Your task to perform on an android device: turn off data saver in the chrome app Image 0: 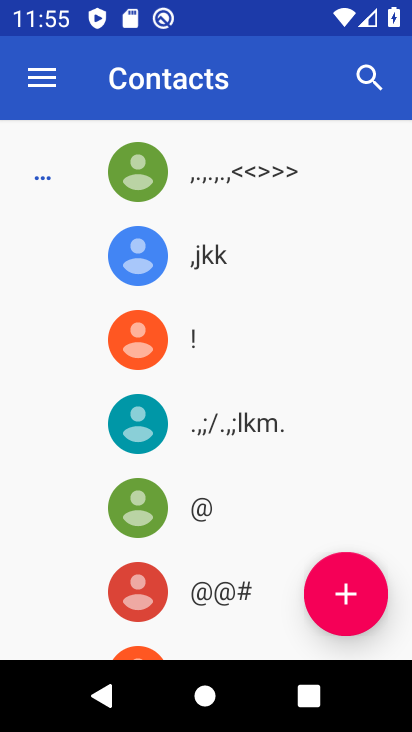
Step 0: press home button
Your task to perform on an android device: turn off data saver in the chrome app Image 1: 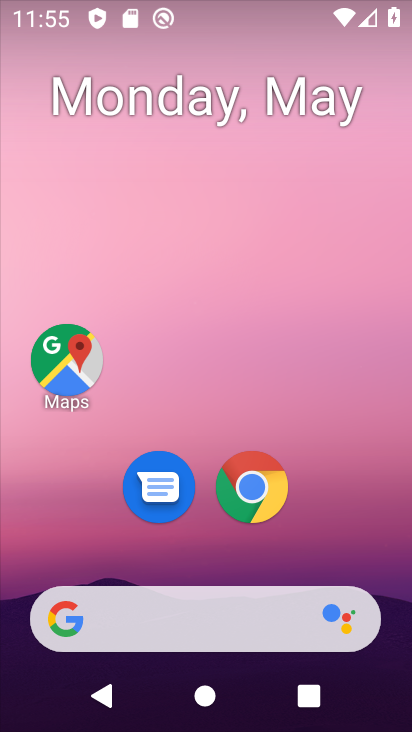
Step 1: click (265, 474)
Your task to perform on an android device: turn off data saver in the chrome app Image 2: 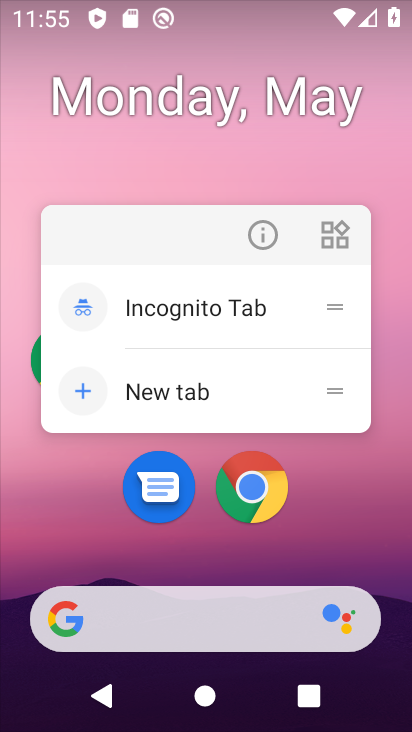
Step 2: click (265, 471)
Your task to perform on an android device: turn off data saver in the chrome app Image 3: 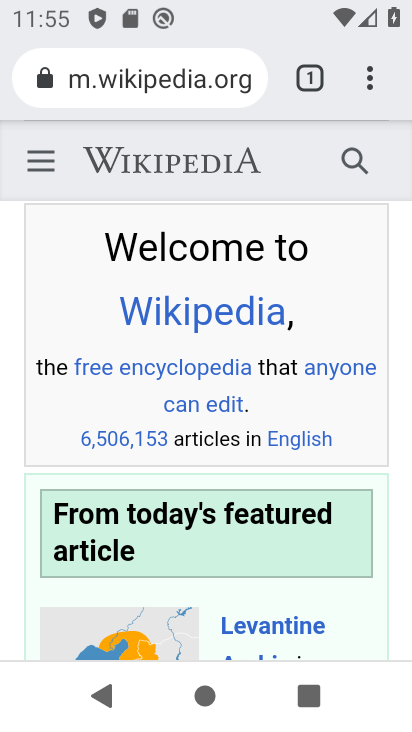
Step 3: click (381, 63)
Your task to perform on an android device: turn off data saver in the chrome app Image 4: 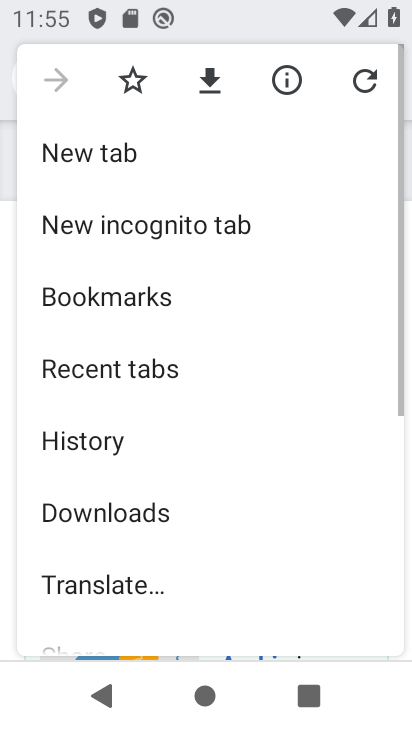
Step 4: drag from (193, 573) to (164, 120)
Your task to perform on an android device: turn off data saver in the chrome app Image 5: 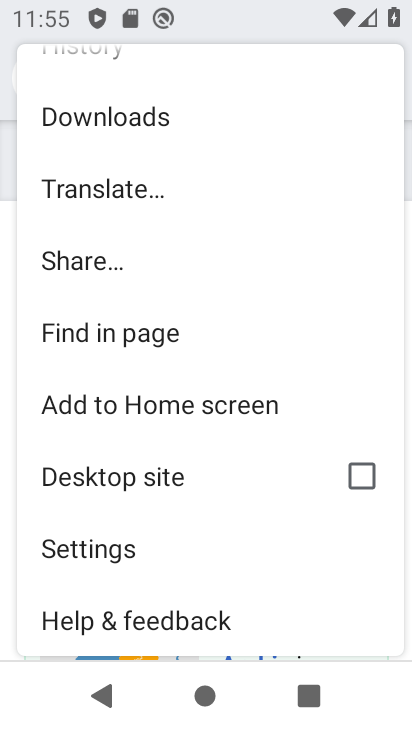
Step 5: click (123, 531)
Your task to perform on an android device: turn off data saver in the chrome app Image 6: 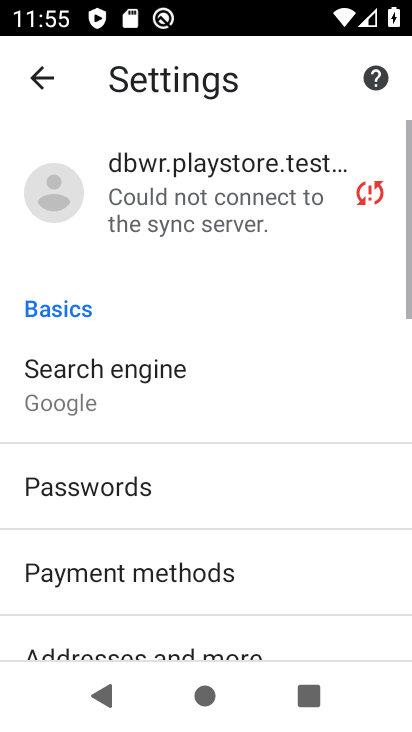
Step 6: drag from (173, 546) to (221, 109)
Your task to perform on an android device: turn off data saver in the chrome app Image 7: 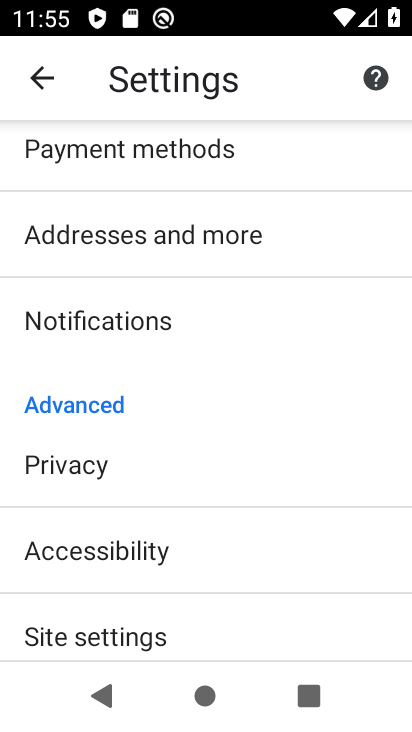
Step 7: drag from (166, 535) to (154, 251)
Your task to perform on an android device: turn off data saver in the chrome app Image 8: 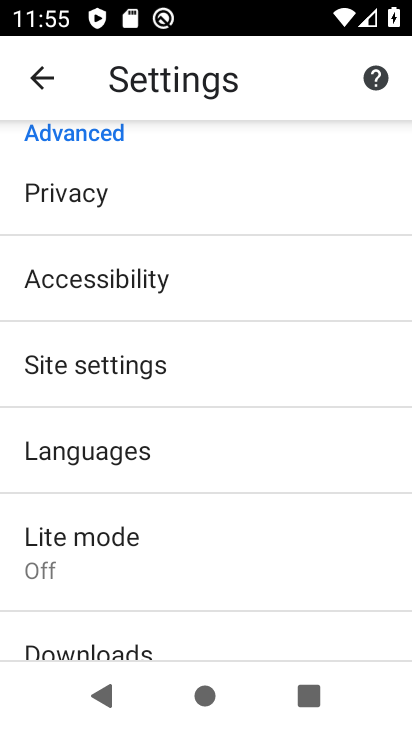
Step 8: click (98, 544)
Your task to perform on an android device: turn off data saver in the chrome app Image 9: 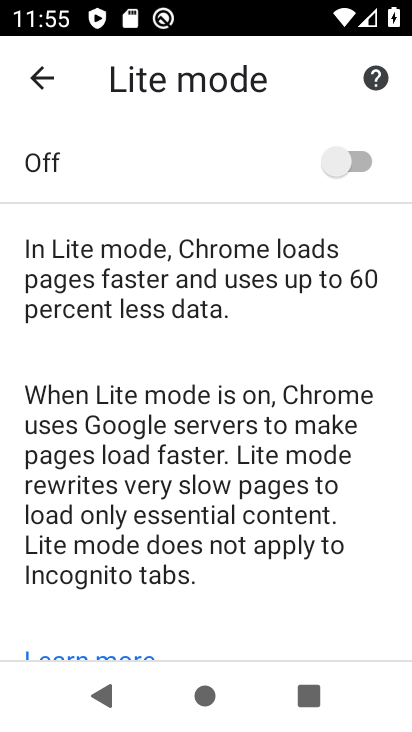
Step 9: task complete